Your task to perform on an android device: Check the weather Image 0: 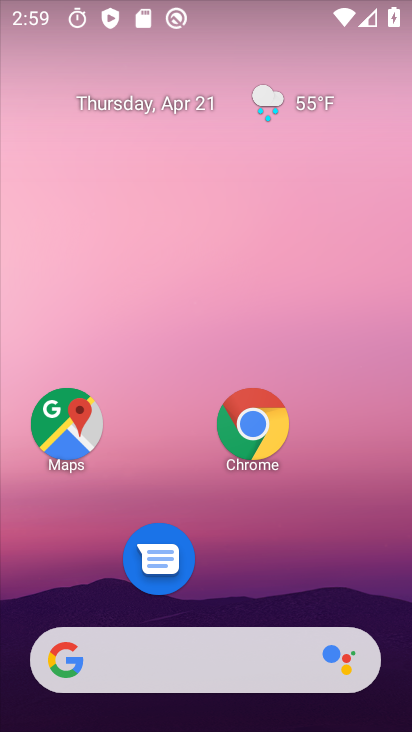
Step 0: drag from (262, 553) to (184, 136)
Your task to perform on an android device: Check the weather Image 1: 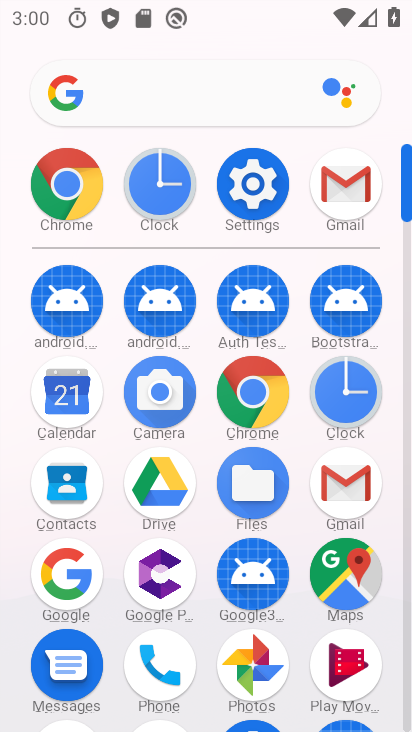
Step 1: click (74, 570)
Your task to perform on an android device: Check the weather Image 2: 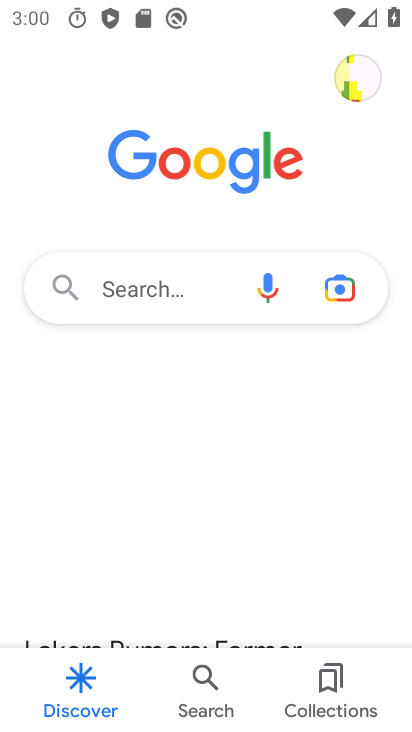
Step 2: click (146, 304)
Your task to perform on an android device: Check the weather Image 3: 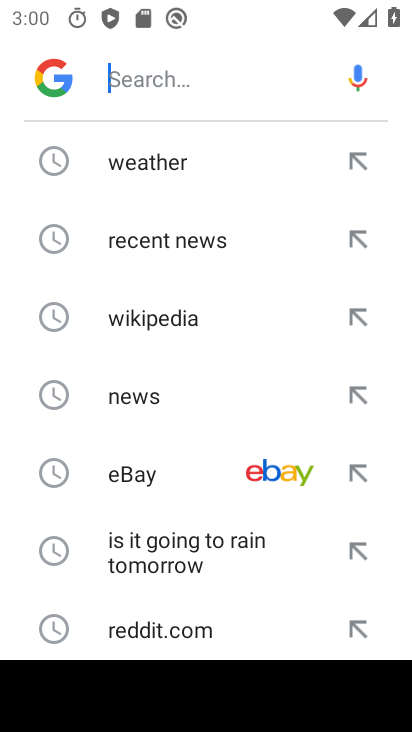
Step 3: click (173, 166)
Your task to perform on an android device: Check the weather Image 4: 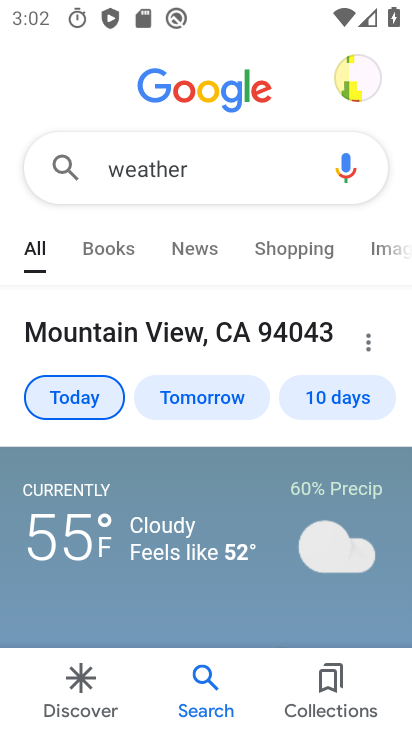
Step 4: task complete